Your task to perform on an android device: Show me productivity apps on the Play Store Image 0: 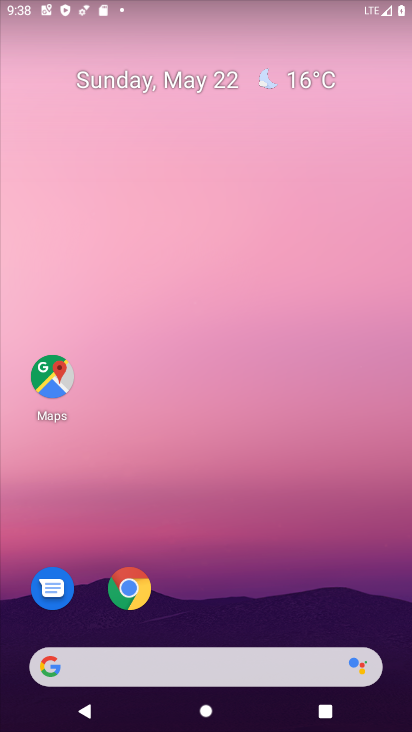
Step 0: drag from (198, 610) to (214, 260)
Your task to perform on an android device: Show me productivity apps on the Play Store Image 1: 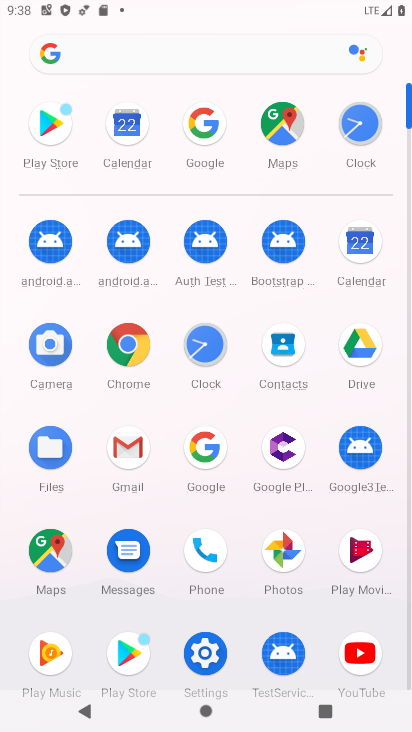
Step 1: click (52, 132)
Your task to perform on an android device: Show me productivity apps on the Play Store Image 2: 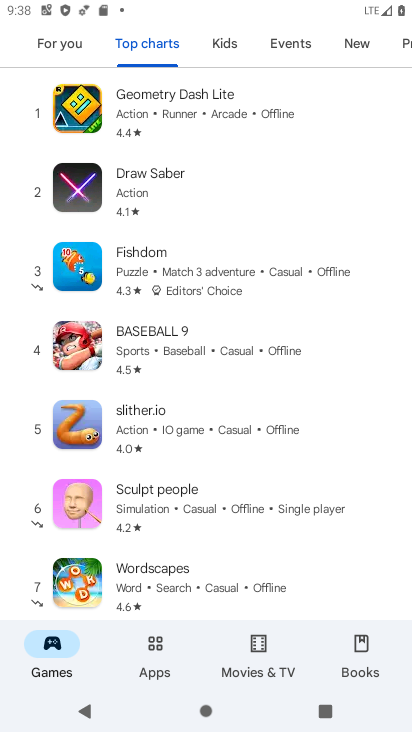
Step 2: click (159, 647)
Your task to perform on an android device: Show me productivity apps on the Play Store Image 3: 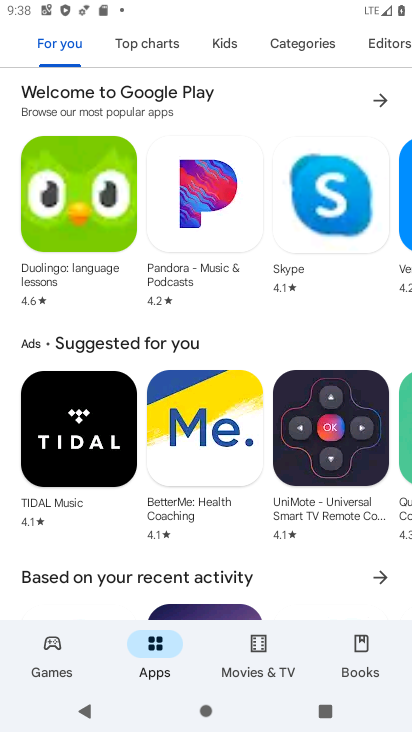
Step 3: click (283, 40)
Your task to perform on an android device: Show me productivity apps on the Play Store Image 4: 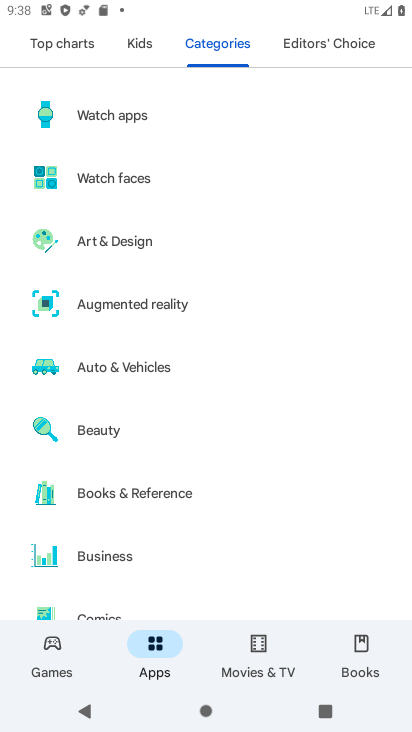
Step 4: drag from (220, 581) to (203, 202)
Your task to perform on an android device: Show me productivity apps on the Play Store Image 5: 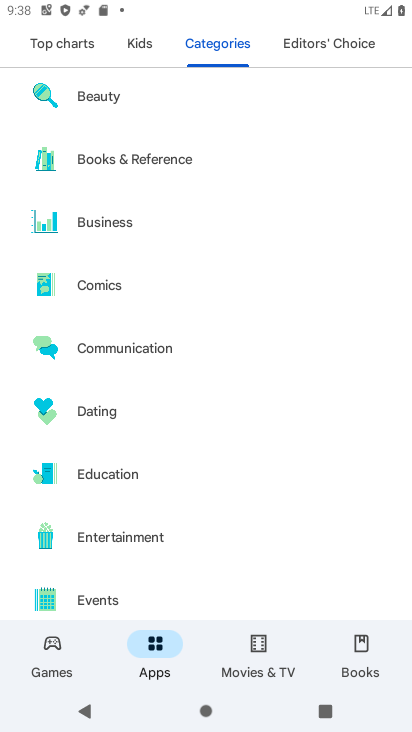
Step 5: drag from (109, 567) to (149, 278)
Your task to perform on an android device: Show me productivity apps on the Play Store Image 6: 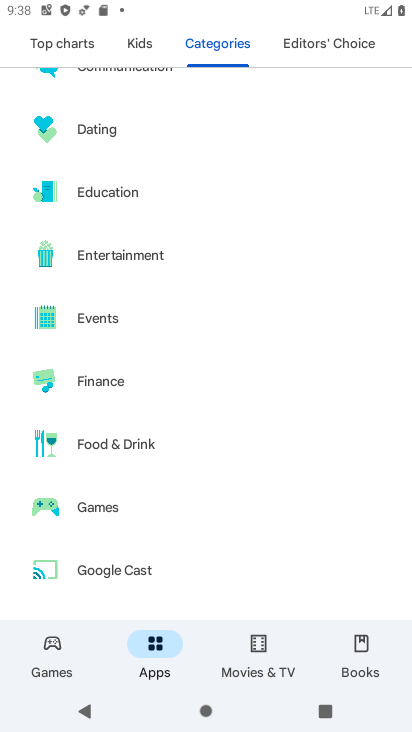
Step 6: drag from (137, 529) to (190, 200)
Your task to perform on an android device: Show me productivity apps on the Play Store Image 7: 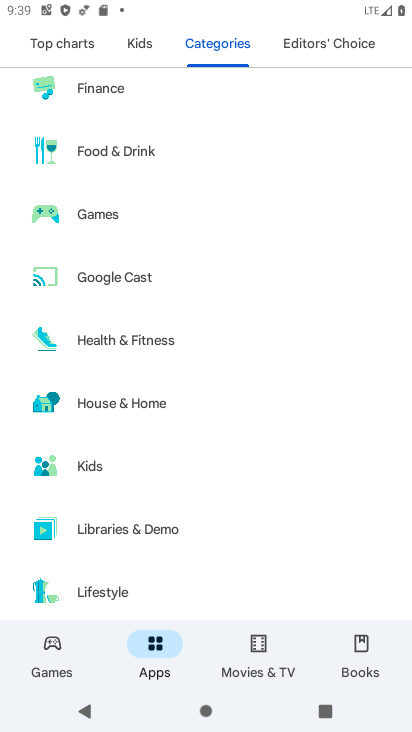
Step 7: drag from (156, 553) to (140, 194)
Your task to perform on an android device: Show me productivity apps on the Play Store Image 8: 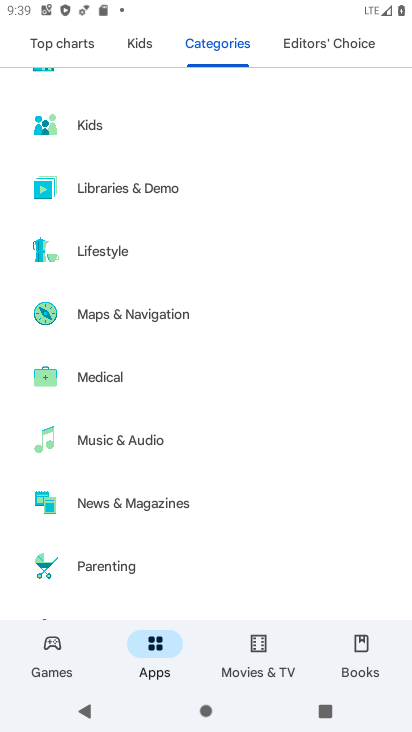
Step 8: drag from (166, 496) to (202, 234)
Your task to perform on an android device: Show me productivity apps on the Play Store Image 9: 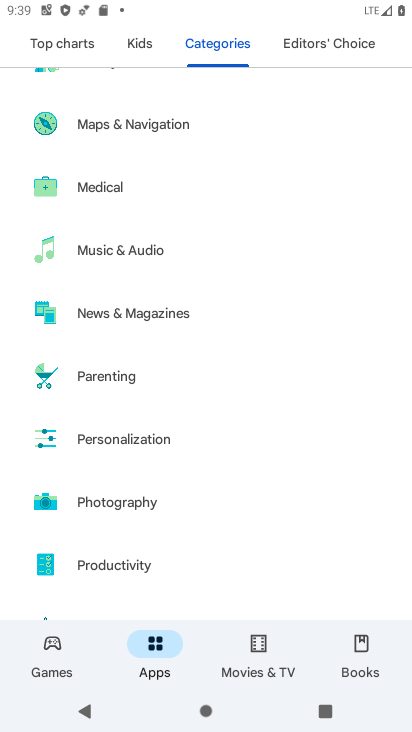
Step 9: click (151, 551)
Your task to perform on an android device: Show me productivity apps on the Play Store Image 10: 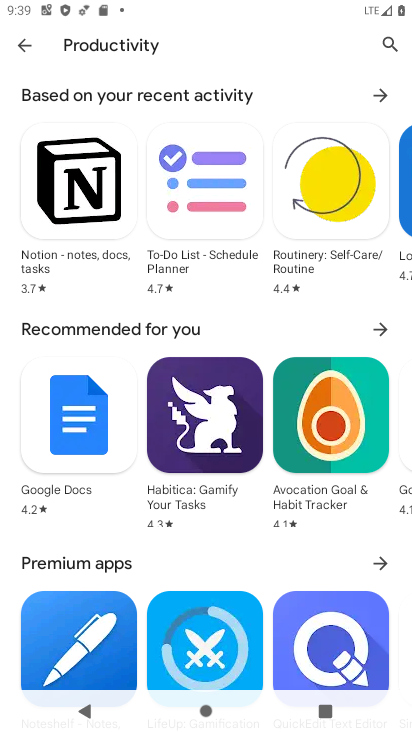
Step 10: task complete